Your task to perform on an android device: Go to Android settings Image 0: 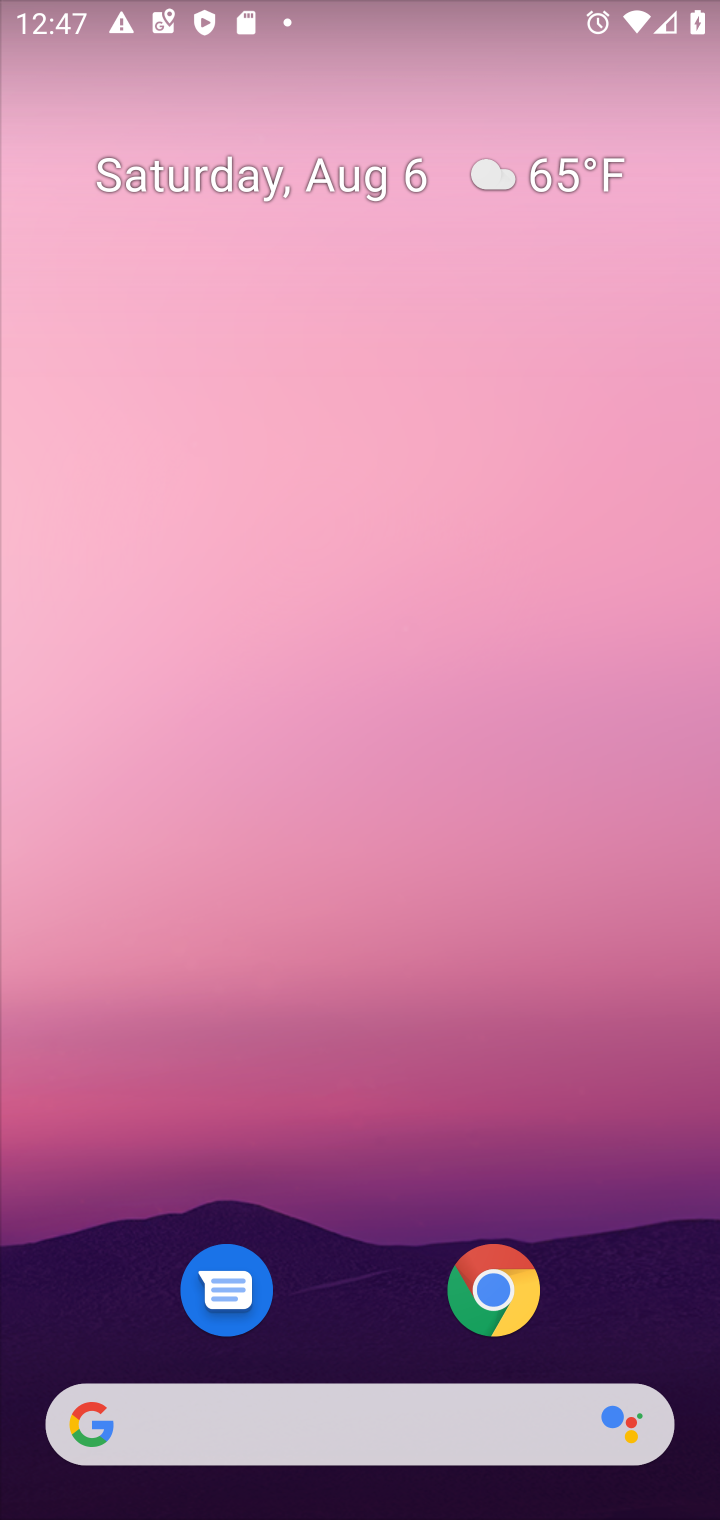
Step 0: drag from (368, 1335) to (556, 116)
Your task to perform on an android device: Go to Android settings Image 1: 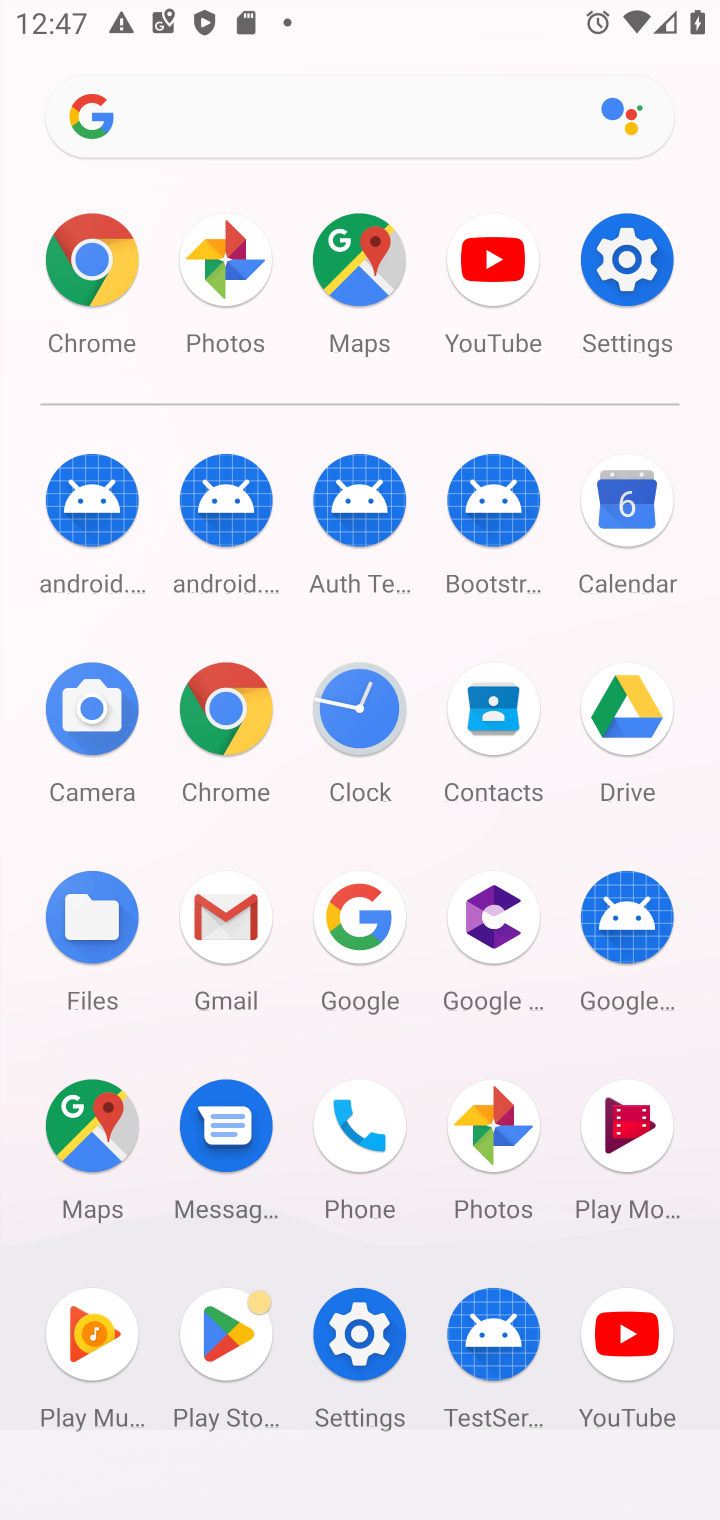
Step 1: click (619, 253)
Your task to perform on an android device: Go to Android settings Image 2: 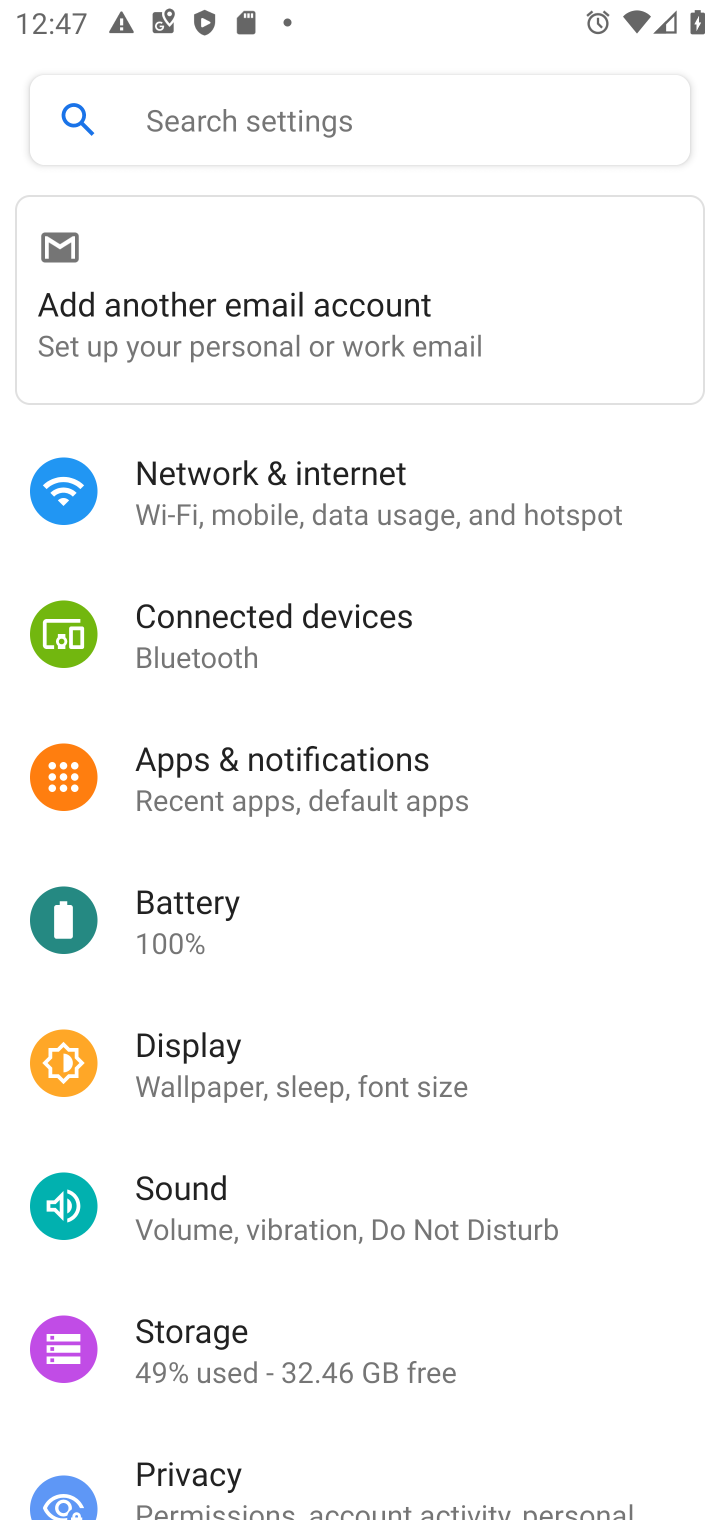
Step 2: drag from (353, 1430) to (362, 147)
Your task to perform on an android device: Go to Android settings Image 3: 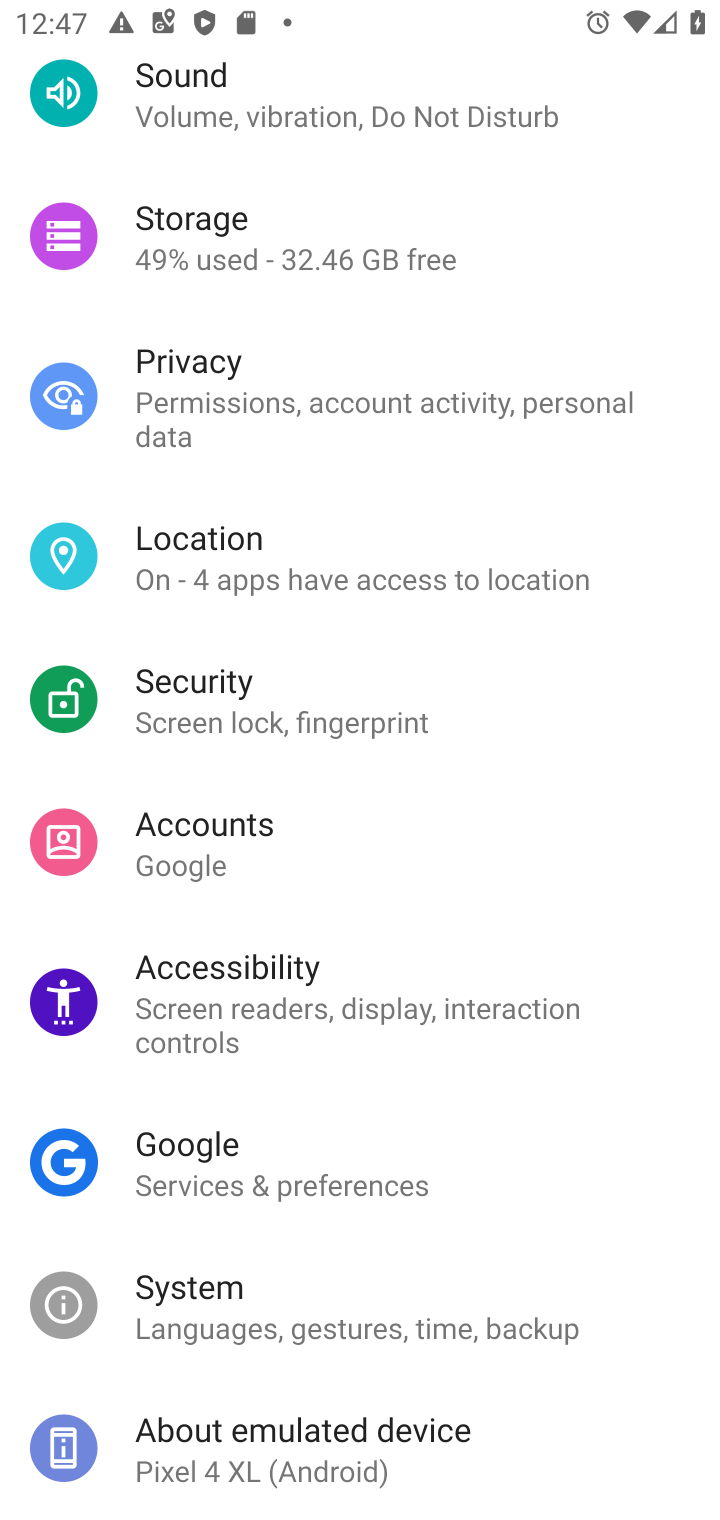
Step 3: click (404, 1456)
Your task to perform on an android device: Go to Android settings Image 4: 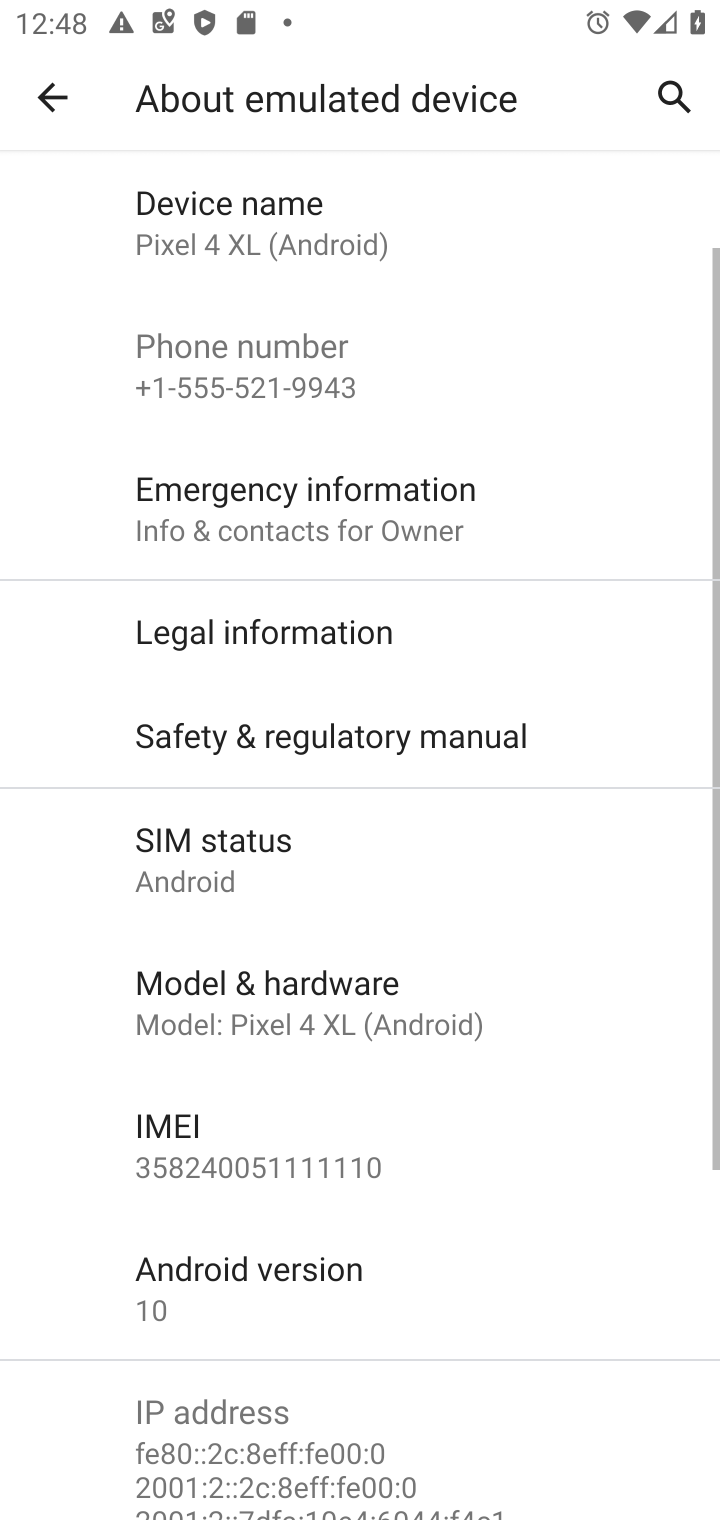
Step 4: click (252, 1301)
Your task to perform on an android device: Go to Android settings Image 5: 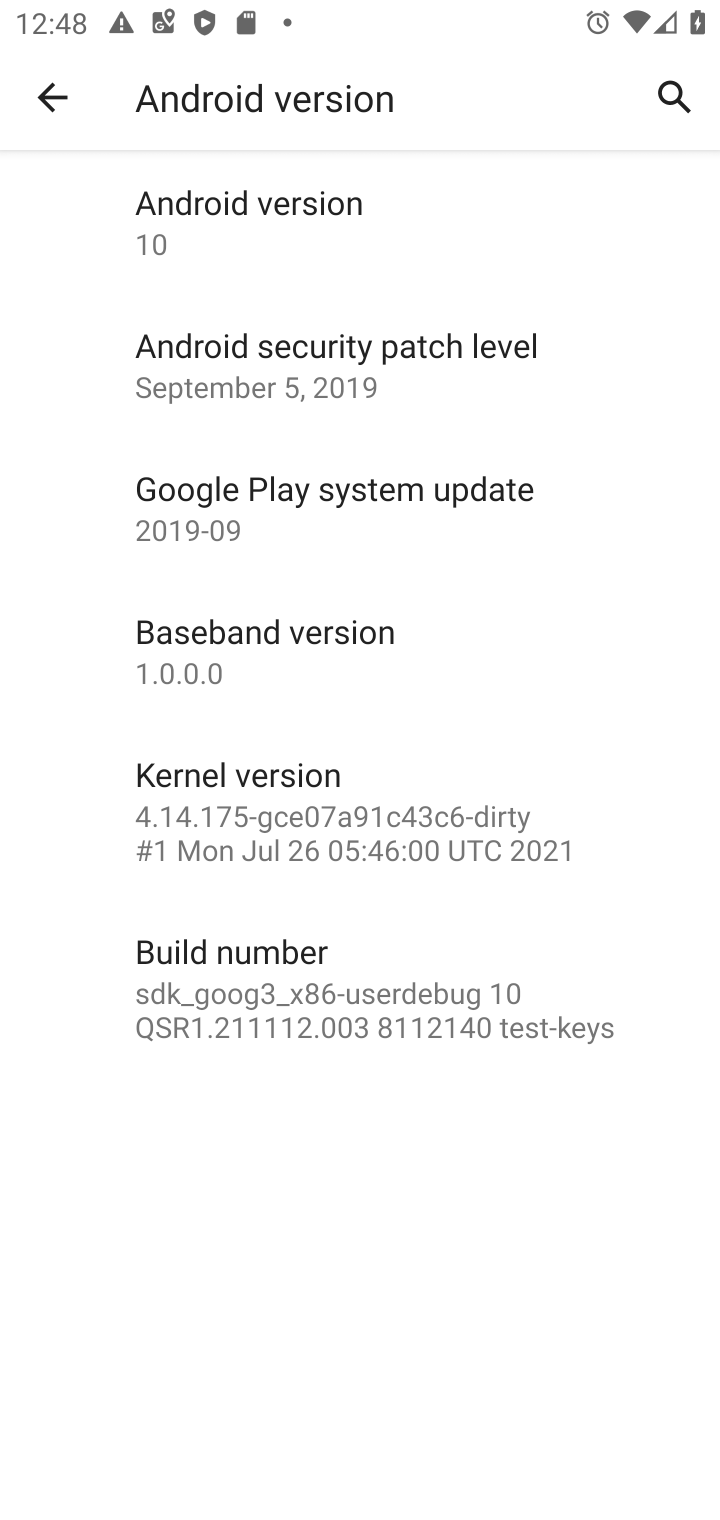
Step 5: task complete